Your task to perform on an android device: Open wifi settings Image 0: 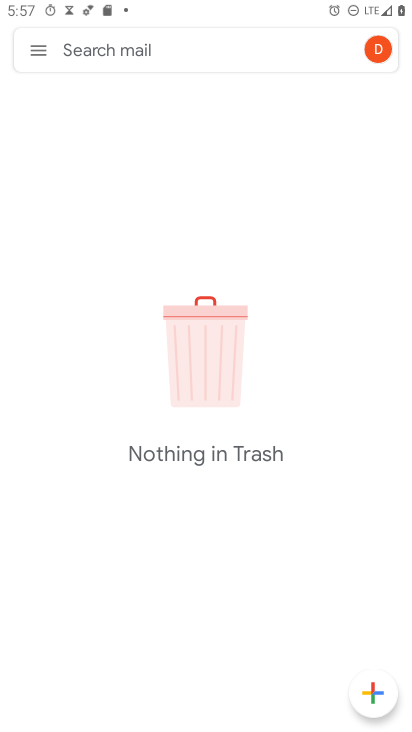
Step 0: press home button
Your task to perform on an android device: Open wifi settings Image 1: 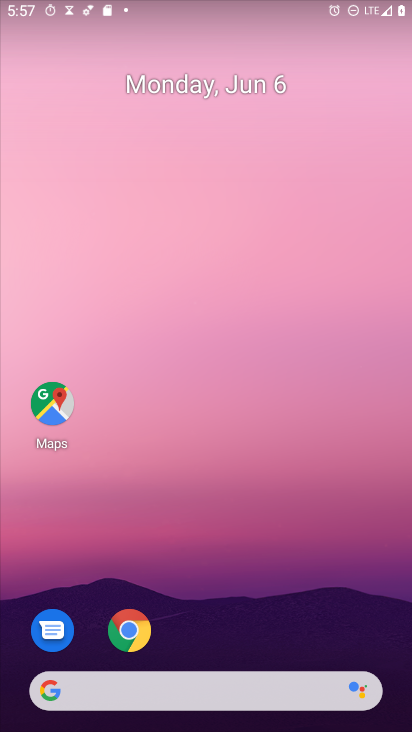
Step 1: drag from (317, 550) to (171, 23)
Your task to perform on an android device: Open wifi settings Image 2: 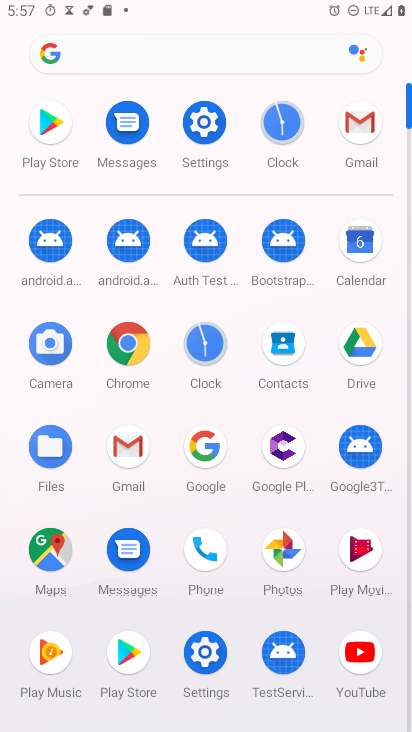
Step 2: click (205, 111)
Your task to perform on an android device: Open wifi settings Image 3: 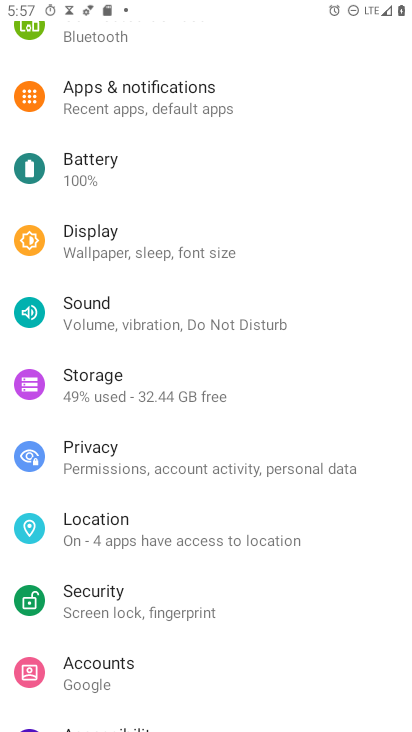
Step 3: drag from (201, 87) to (208, 644)
Your task to perform on an android device: Open wifi settings Image 4: 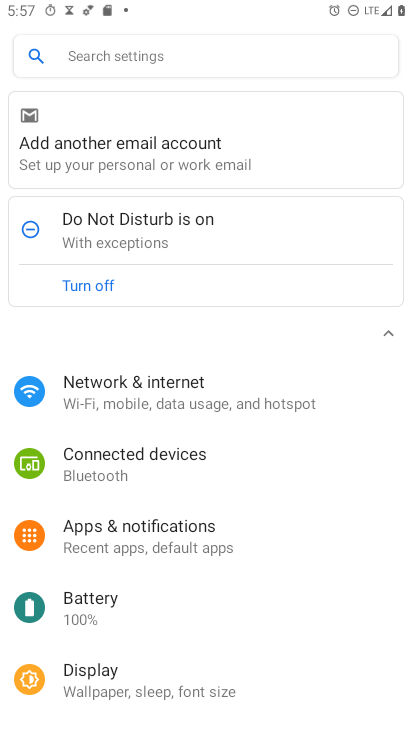
Step 4: click (192, 414)
Your task to perform on an android device: Open wifi settings Image 5: 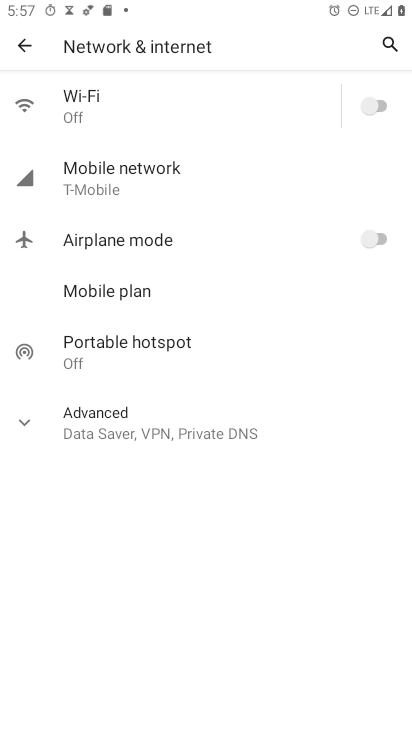
Step 5: task complete